Your task to perform on an android device: delete location history Image 0: 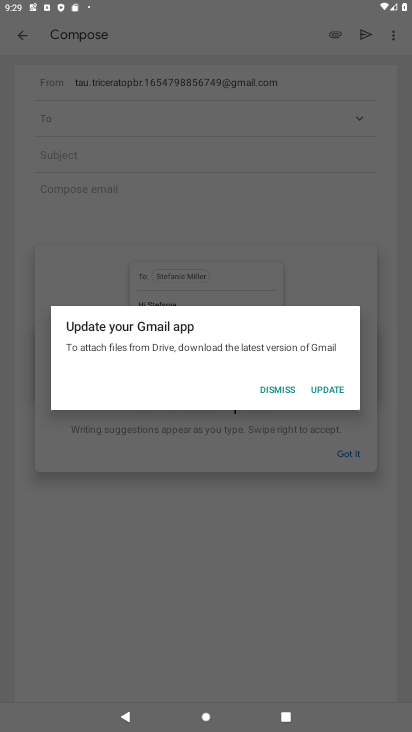
Step 0: press home button
Your task to perform on an android device: delete location history Image 1: 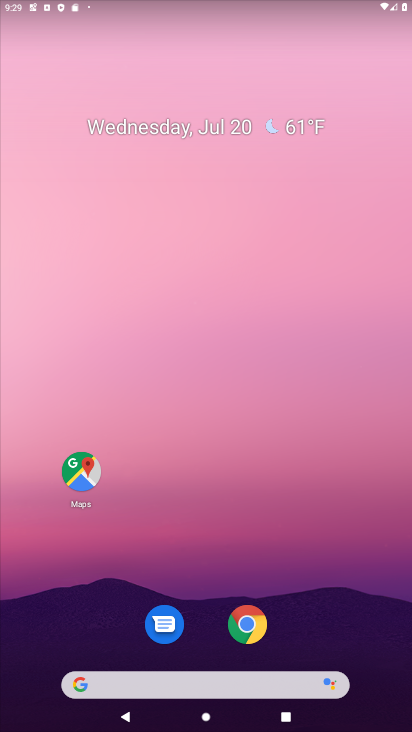
Step 1: click (78, 487)
Your task to perform on an android device: delete location history Image 2: 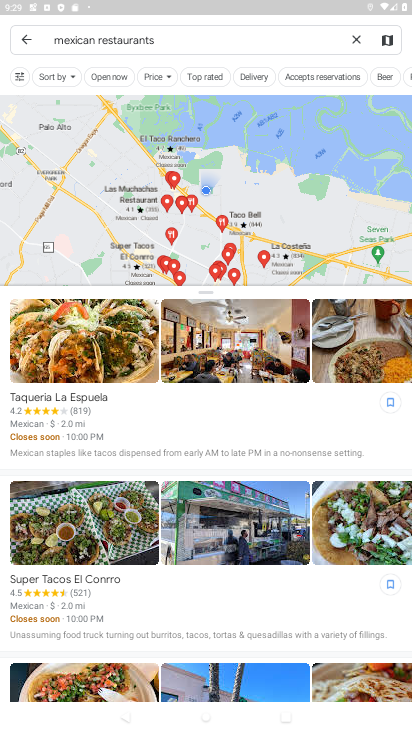
Step 2: click (27, 36)
Your task to perform on an android device: delete location history Image 3: 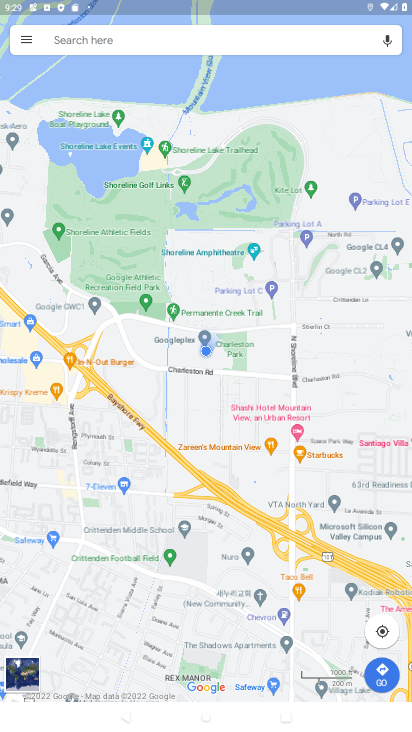
Step 3: click (27, 36)
Your task to perform on an android device: delete location history Image 4: 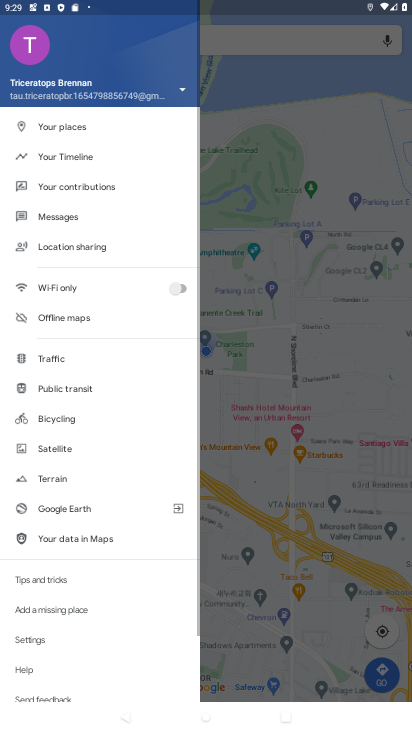
Step 4: click (91, 153)
Your task to perform on an android device: delete location history Image 5: 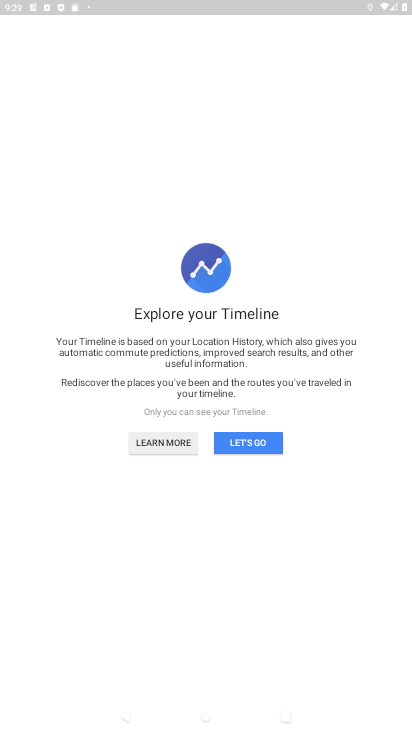
Step 5: click (239, 451)
Your task to perform on an android device: delete location history Image 6: 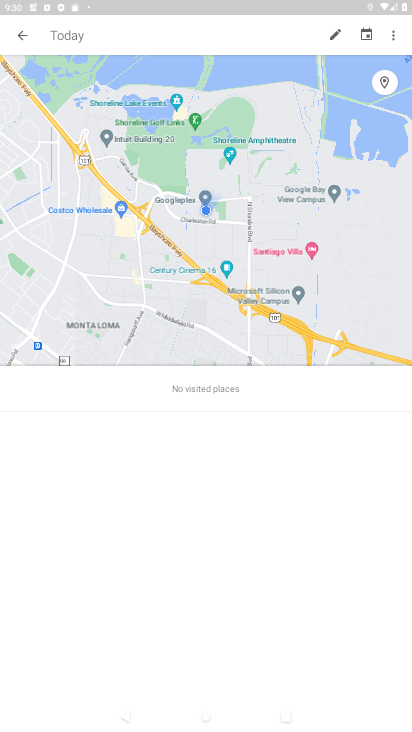
Step 6: click (387, 39)
Your task to perform on an android device: delete location history Image 7: 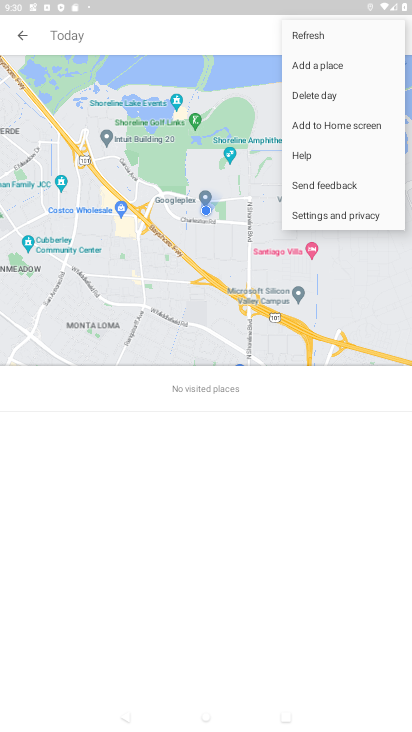
Step 7: click (316, 212)
Your task to perform on an android device: delete location history Image 8: 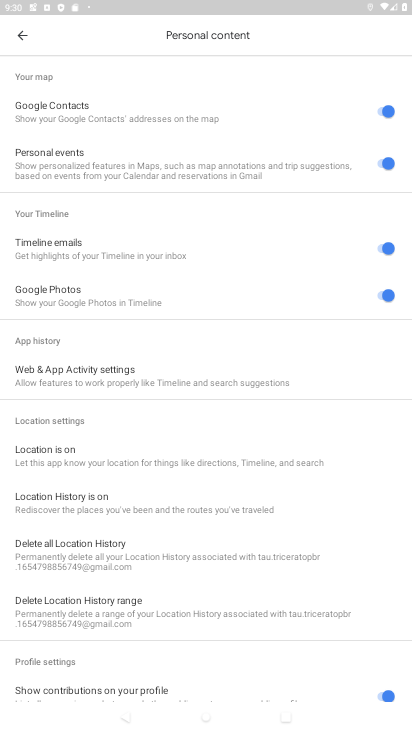
Step 8: click (61, 554)
Your task to perform on an android device: delete location history Image 9: 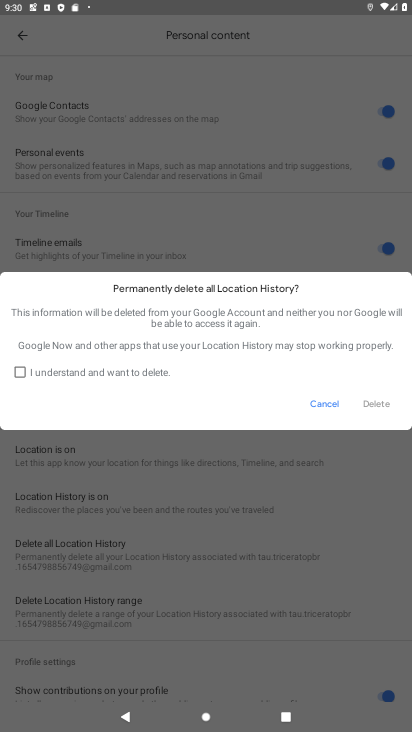
Step 9: click (66, 378)
Your task to perform on an android device: delete location history Image 10: 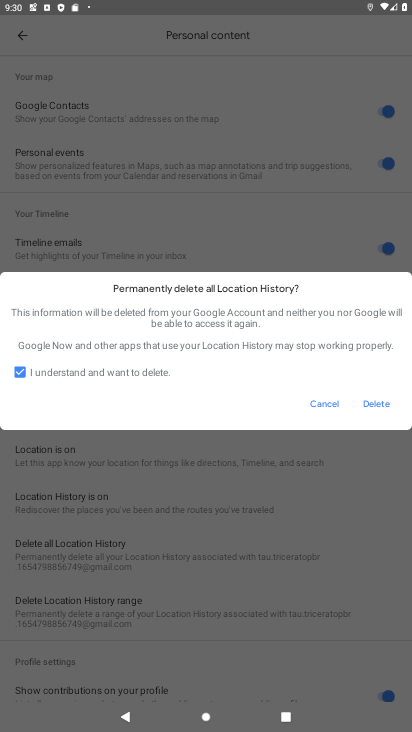
Step 10: click (384, 407)
Your task to perform on an android device: delete location history Image 11: 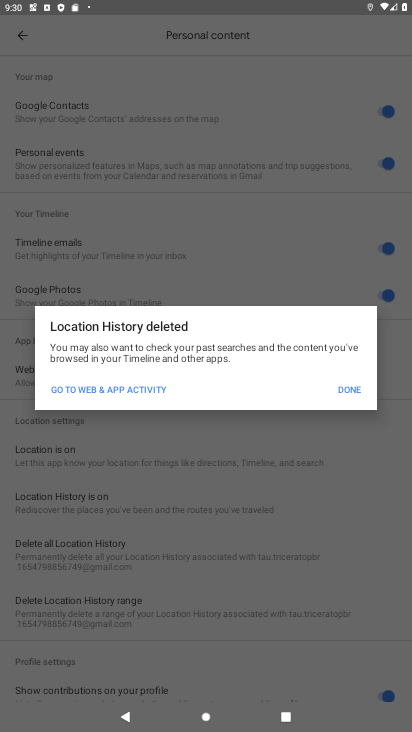
Step 11: task complete